Your task to perform on an android device: turn on sleep mode Image 0: 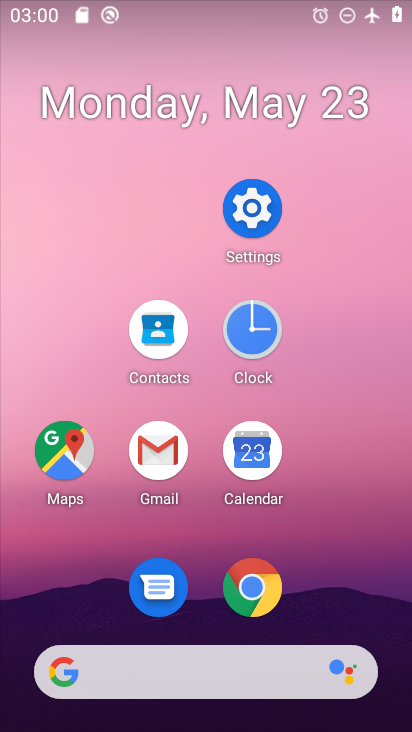
Step 0: click (272, 212)
Your task to perform on an android device: turn on sleep mode Image 1: 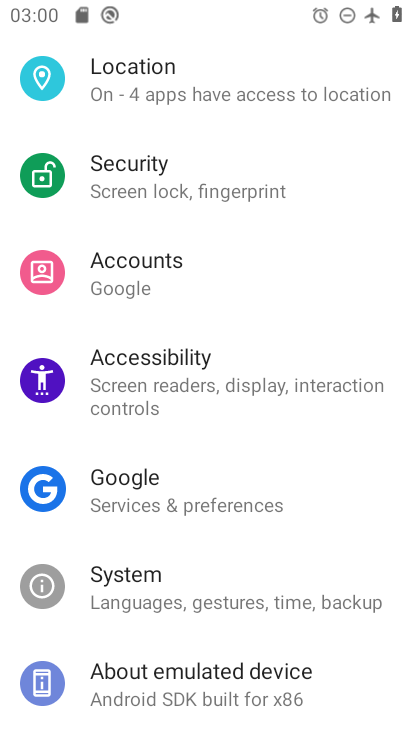
Step 1: drag from (285, 256) to (357, 529)
Your task to perform on an android device: turn on sleep mode Image 2: 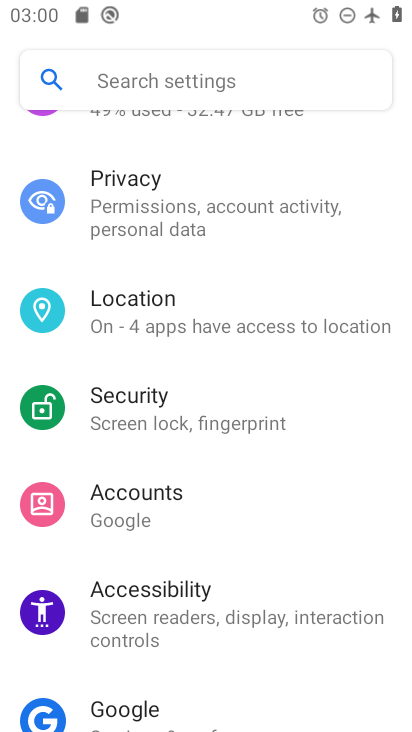
Step 2: drag from (273, 161) to (298, 719)
Your task to perform on an android device: turn on sleep mode Image 3: 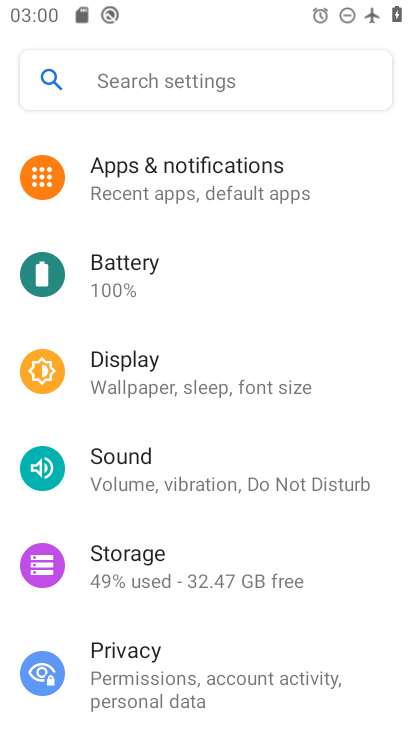
Step 3: click (255, 374)
Your task to perform on an android device: turn on sleep mode Image 4: 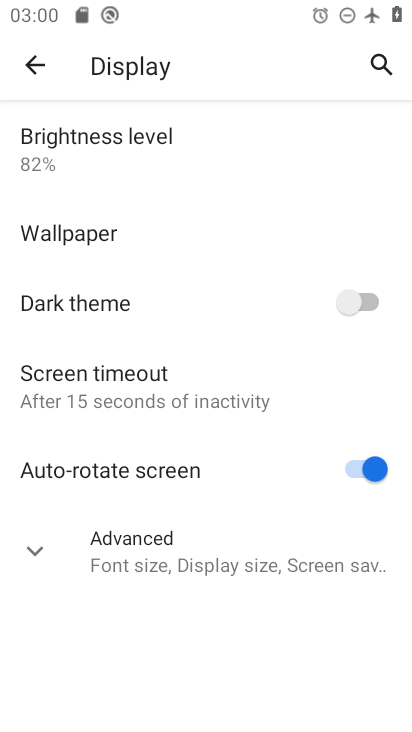
Step 4: click (196, 398)
Your task to perform on an android device: turn on sleep mode Image 5: 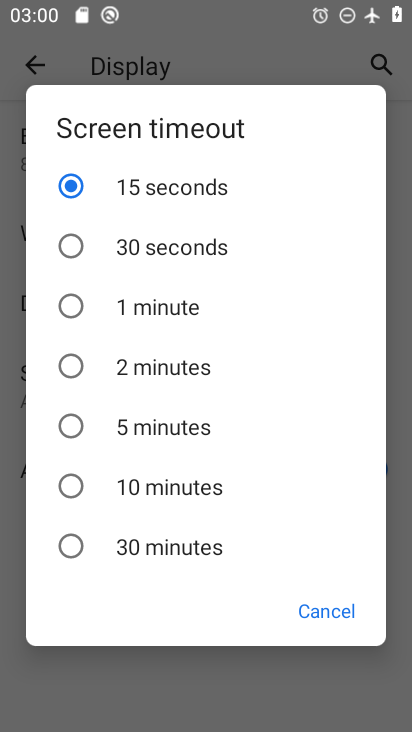
Step 5: click (196, 398)
Your task to perform on an android device: turn on sleep mode Image 6: 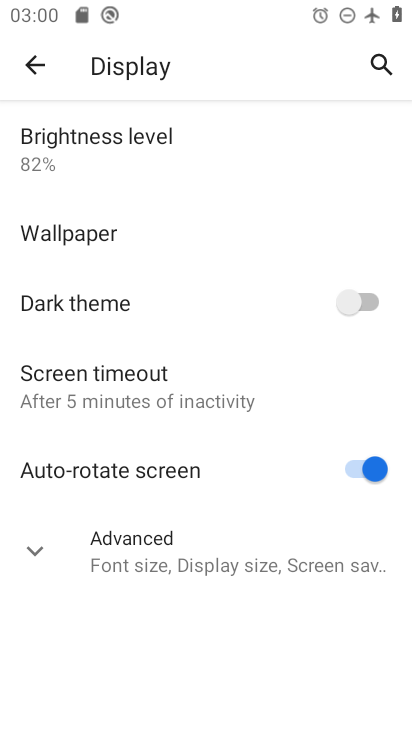
Step 6: task complete